Your task to perform on an android device: turn on wifi Image 0: 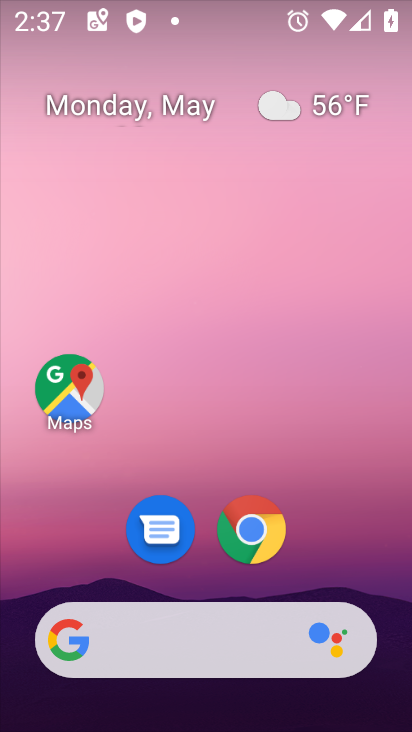
Step 0: drag from (333, 529) to (409, 192)
Your task to perform on an android device: turn on wifi Image 1: 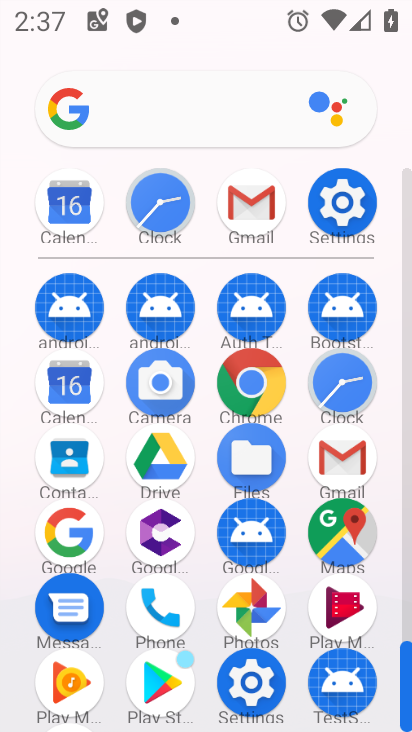
Step 1: click (333, 215)
Your task to perform on an android device: turn on wifi Image 2: 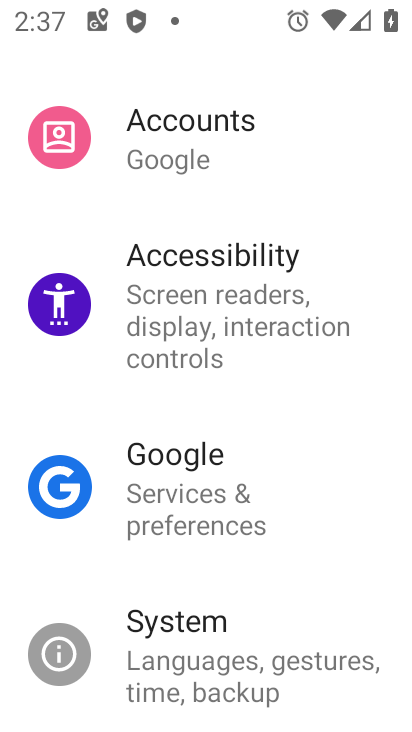
Step 2: drag from (256, 261) to (364, 501)
Your task to perform on an android device: turn on wifi Image 3: 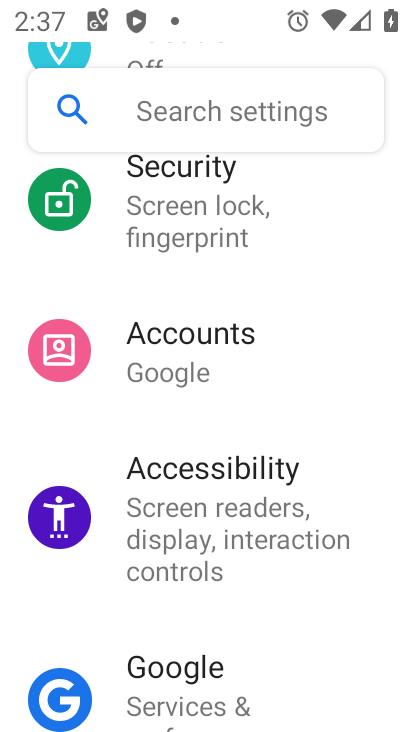
Step 3: drag from (306, 328) to (406, 565)
Your task to perform on an android device: turn on wifi Image 4: 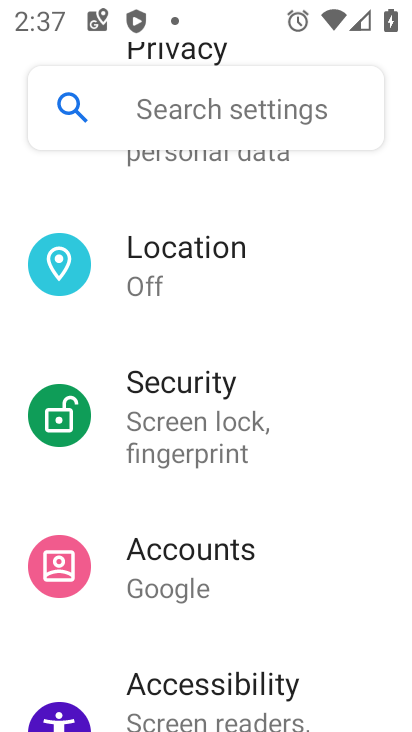
Step 4: drag from (320, 319) to (397, 551)
Your task to perform on an android device: turn on wifi Image 5: 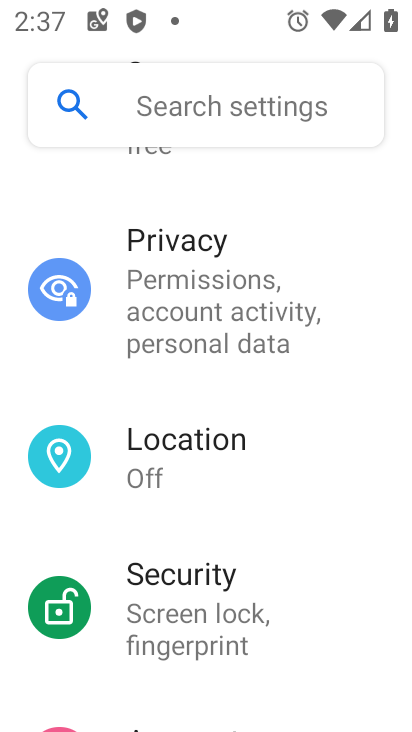
Step 5: drag from (251, 375) to (241, 514)
Your task to perform on an android device: turn on wifi Image 6: 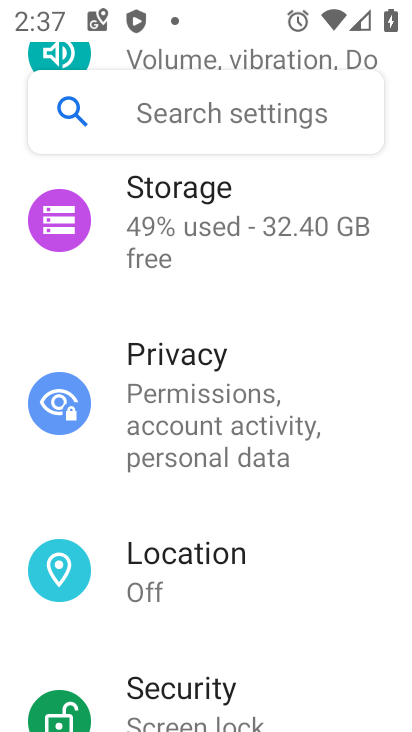
Step 6: drag from (181, 352) to (188, 457)
Your task to perform on an android device: turn on wifi Image 7: 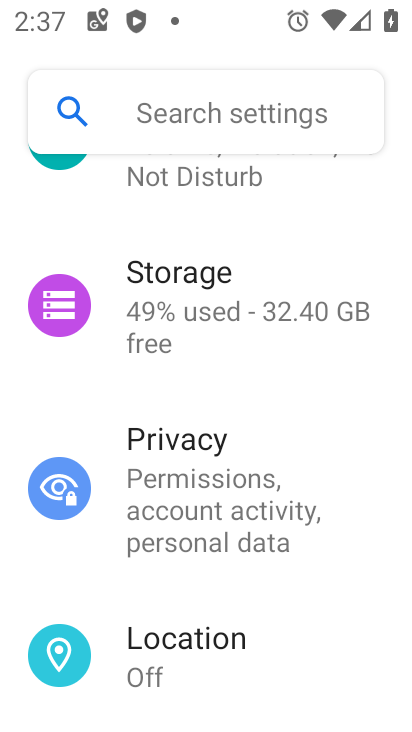
Step 7: drag from (235, 389) to (247, 608)
Your task to perform on an android device: turn on wifi Image 8: 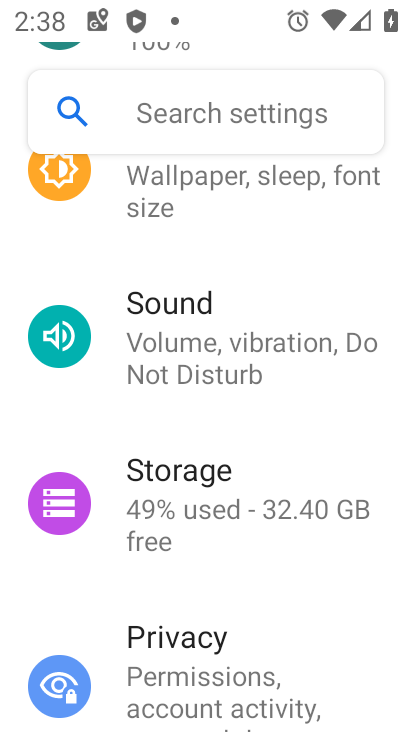
Step 8: drag from (223, 357) to (227, 545)
Your task to perform on an android device: turn on wifi Image 9: 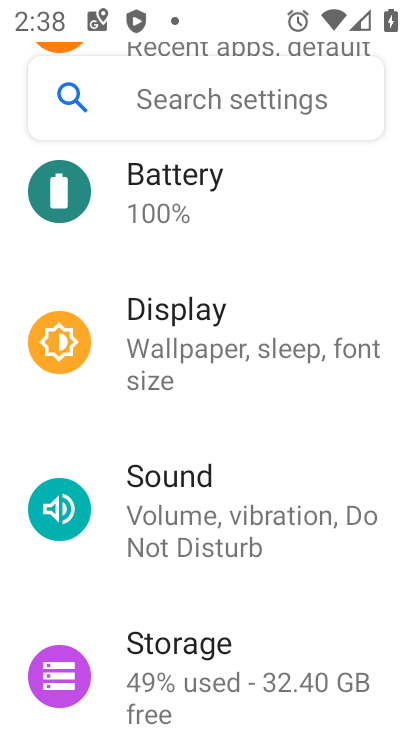
Step 9: drag from (174, 315) to (196, 552)
Your task to perform on an android device: turn on wifi Image 10: 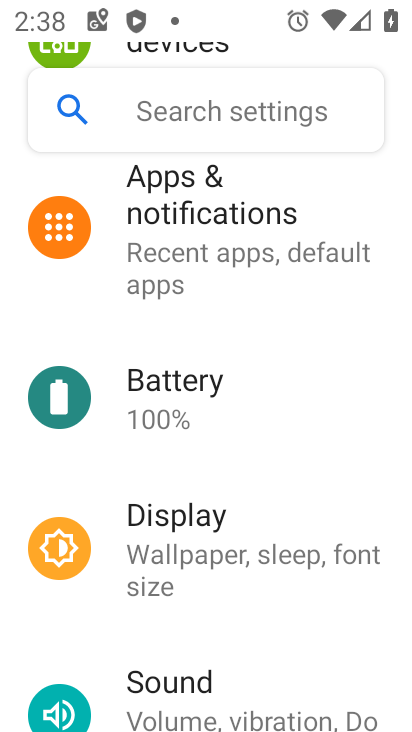
Step 10: drag from (167, 306) to (181, 413)
Your task to perform on an android device: turn on wifi Image 11: 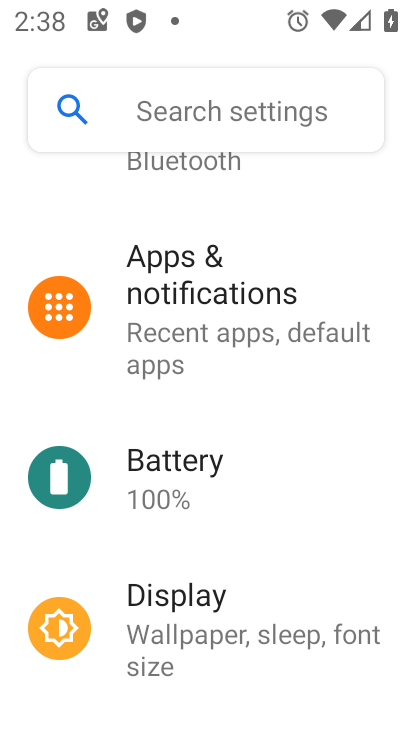
Step 11: drag from (176, 283) to (177, 441)
Your task to perform on an android device: turn on wifi Image 12: 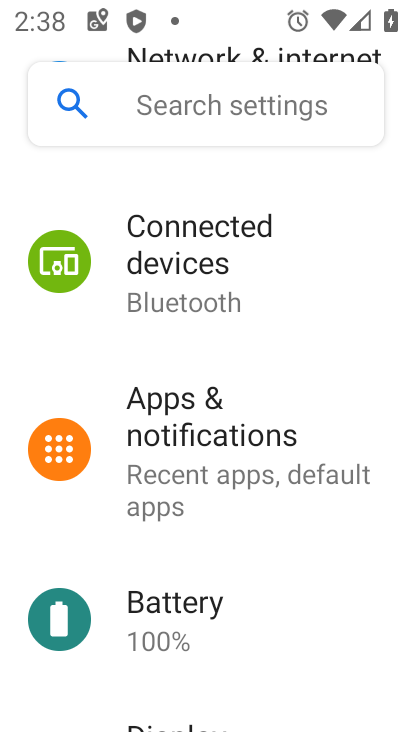
Step 12: drag from (147, 306) to (147, 436)
Your task to perform on an android device: turn on wifi Image 13: 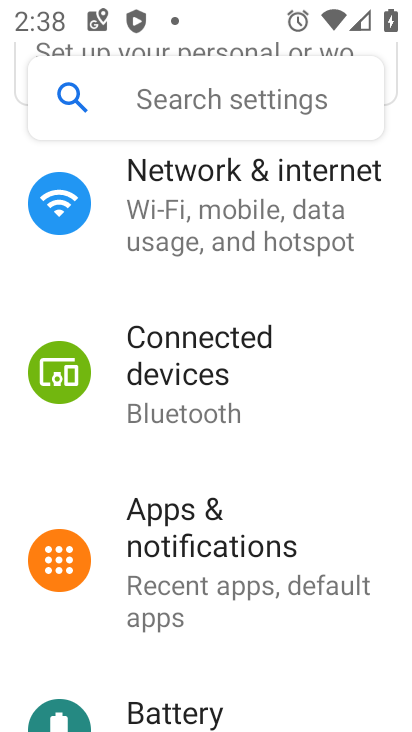
Step 13: click (181, 250)
Your task to perform on an android device: turn on wifi Image 14: 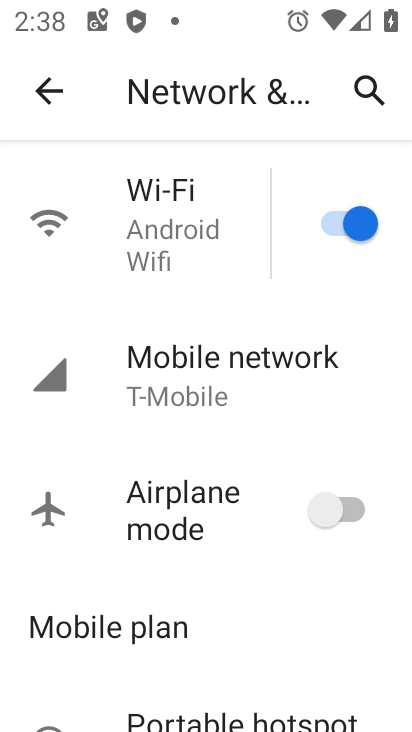
Step 14: task complete